Your task to perform on an android device: allow notifications from all sites in the chrome app Image 0: 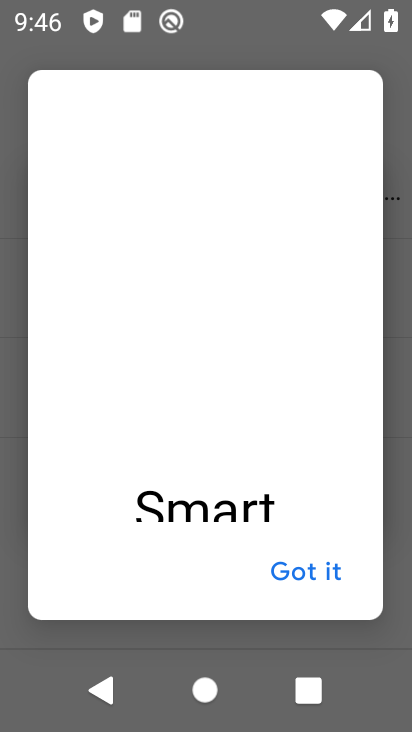
Step 0: press home button
Your task to perform on an android device: allow notifications from all sites in the chrome app Image 1: 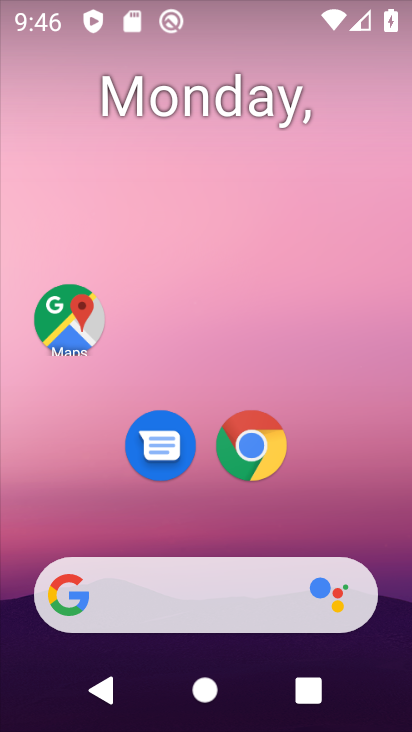
Step 1: click (261, 450)
Your task to perform on an android device: allow notifications from all sites in the chrome app Image 2: 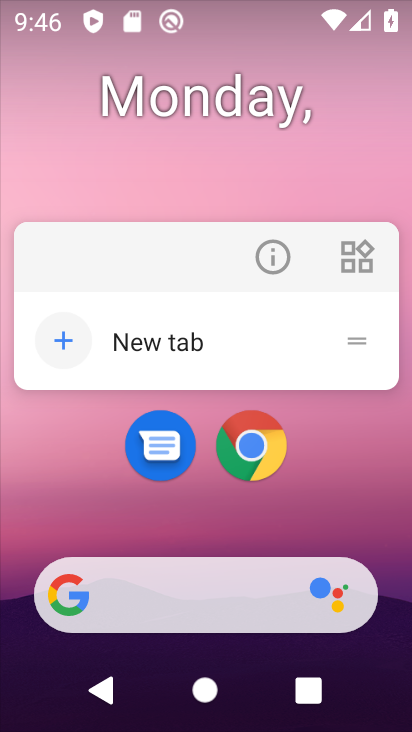
Step 2: click (259, 456)
Your task to perform on an android device: allow notifications from all sites in the chrome app Image 3: 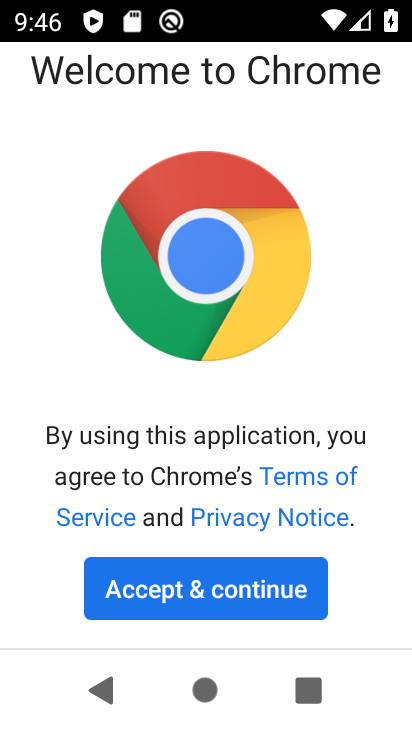
Step 3: click (216, 592)
Your task to perform on an android device: allow notifications from all sites in the chrome app Image 4: 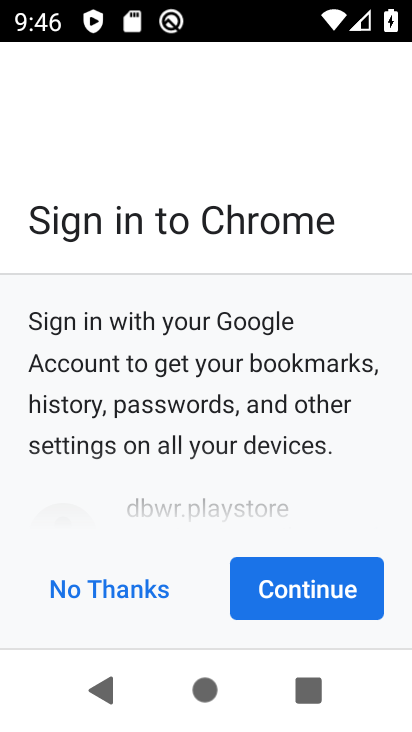
Step 4: click (309, 591)
Your task to perform on an android device: allow notifications from all sites in the chrome app Image 5: 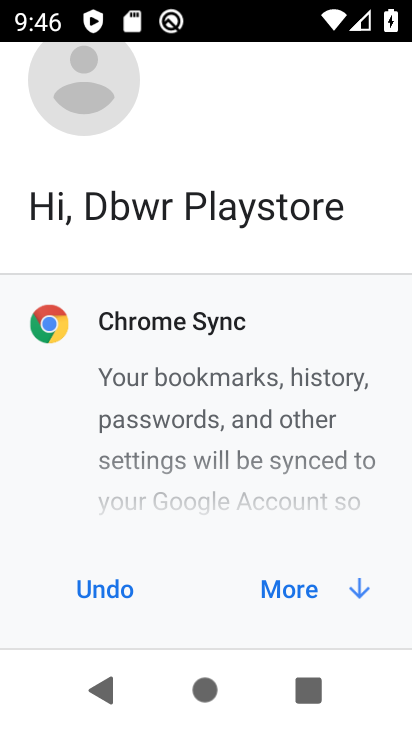
Step 5: click (308, 591)
Your task to perform on an android device: allow notifications from all sites in the chrome app Image 6: 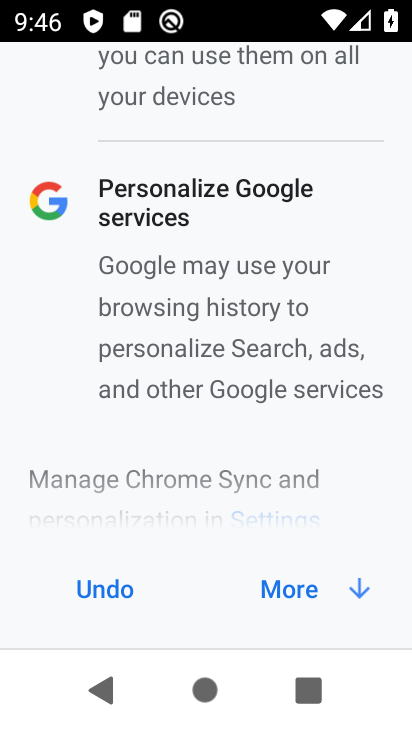
Step 6: click (306, 592)
Your task to perform on an android device: allow notifications from all sites in the chrome app Image 7: 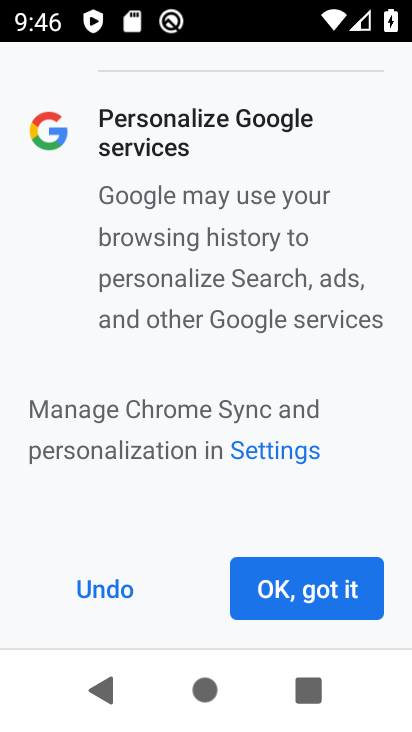
Step 7: click (306, 592)
Your task to perform on an android device: allow notifications from all sites in the chrome app Image 8: 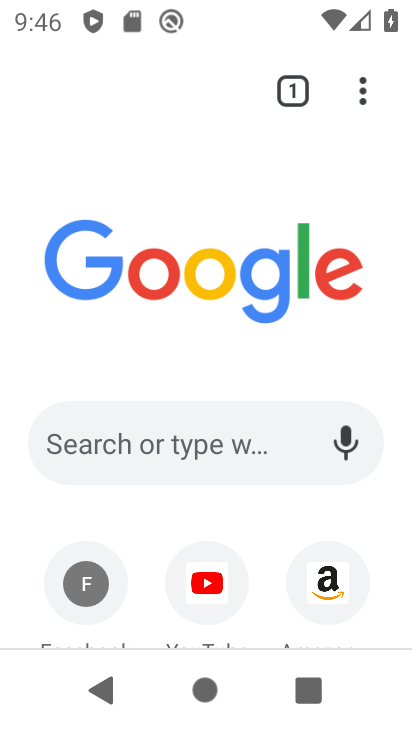
Step 8: drag from (380, 107) to (242, 482)
Your task to perform on an android device: allow notifications from all sites in the chrome app Image 9: 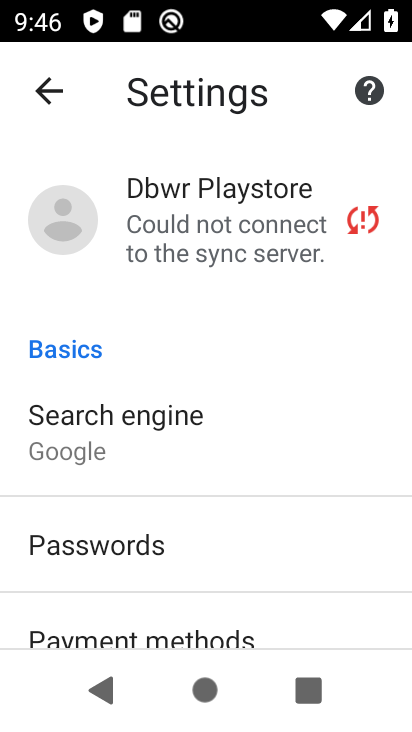
Step 9: drag from (160, 633) to (291, 167)
Your task to perform on an android device: allow notifications from all sites in the chrome app Image 10: 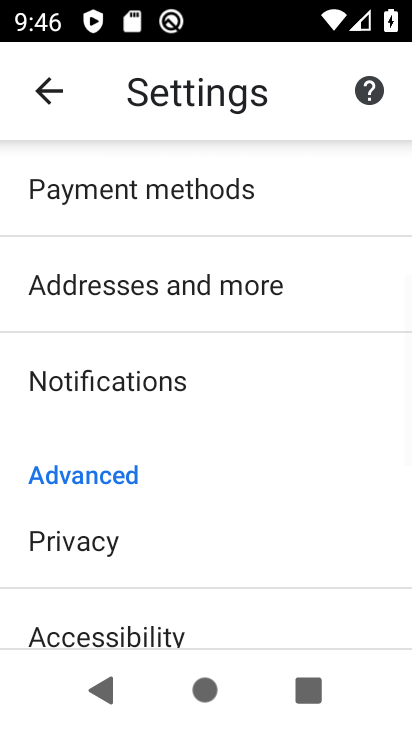
Step 10: drag from (168, 552) to (266, 233)
Your task to perform on an android device: allow notifications from all sites in the chrome app Image 11: 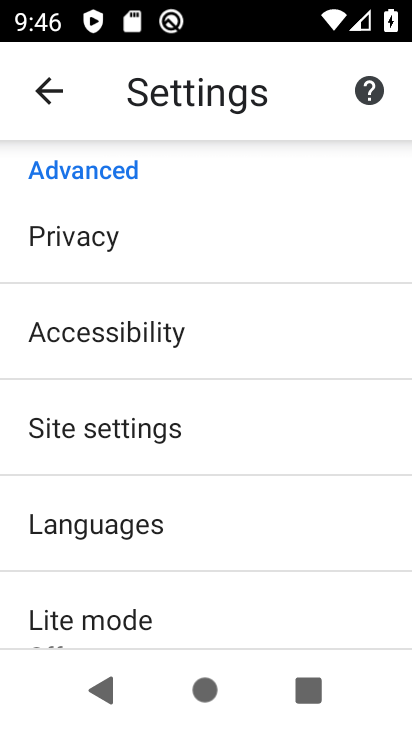
Step 11: click (179, 446)
Your task to perform on an android device: allow notifications from all sites in the chrome app Image 12: 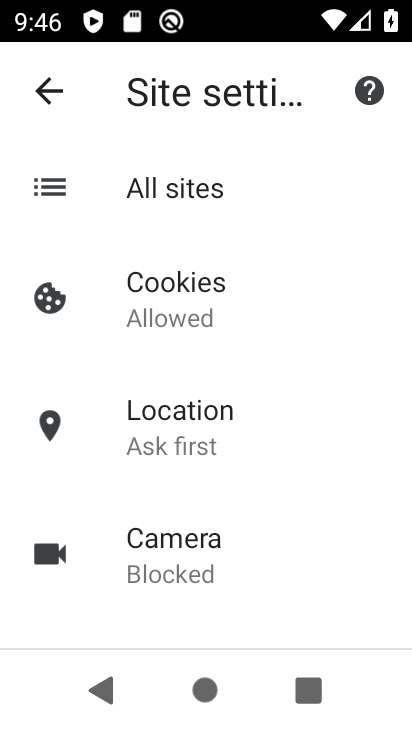
Step 12: drag from (101, 554) to (225, 233)
Your task to perform on an android device: allow notifications from all sites in the chrome app Image 13: 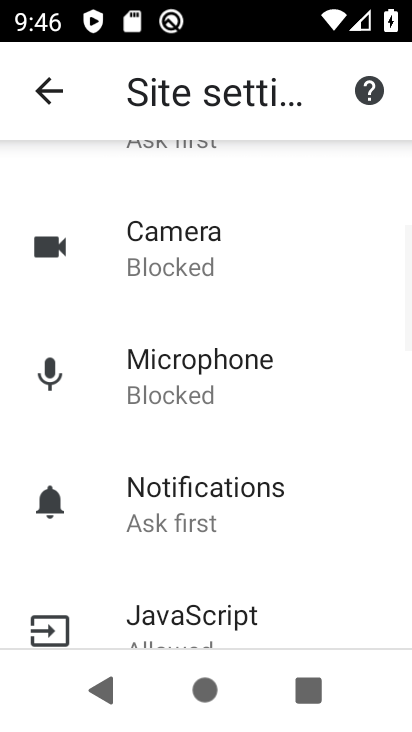
Step 13: click (189, 501)
Your task to perform on an android device: allow notifications from all sites in the chrome app Image 14: 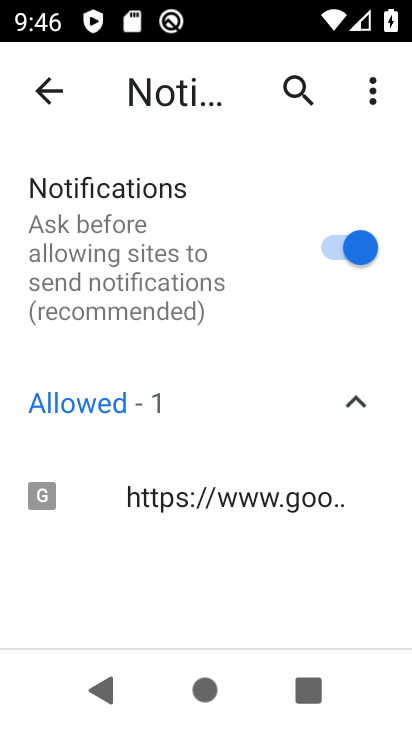
Step 14: click (246, 508)
Your task to perform on an android device: allow notifications from all sites in the chrome app Image 15: 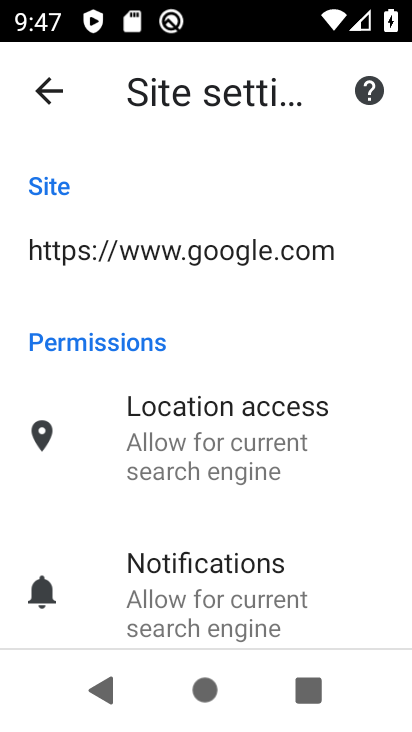
Step 15: click (283, 591)
Your task to perform on an android device: allow notifications from all sites in the chrome app Image 16: 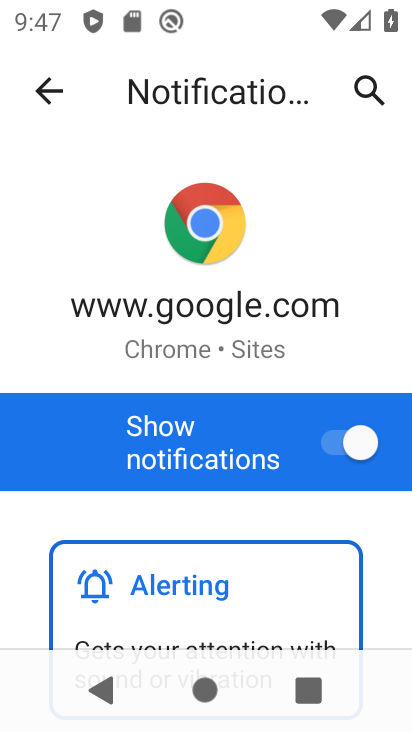
Step 16: task complete